Your task to perform on an android device: View the shopping cart on amazon.com. Search for "jbl flip 4" on amazon.com, select the first entry, add it to the cart, then select checkout. Image 0: 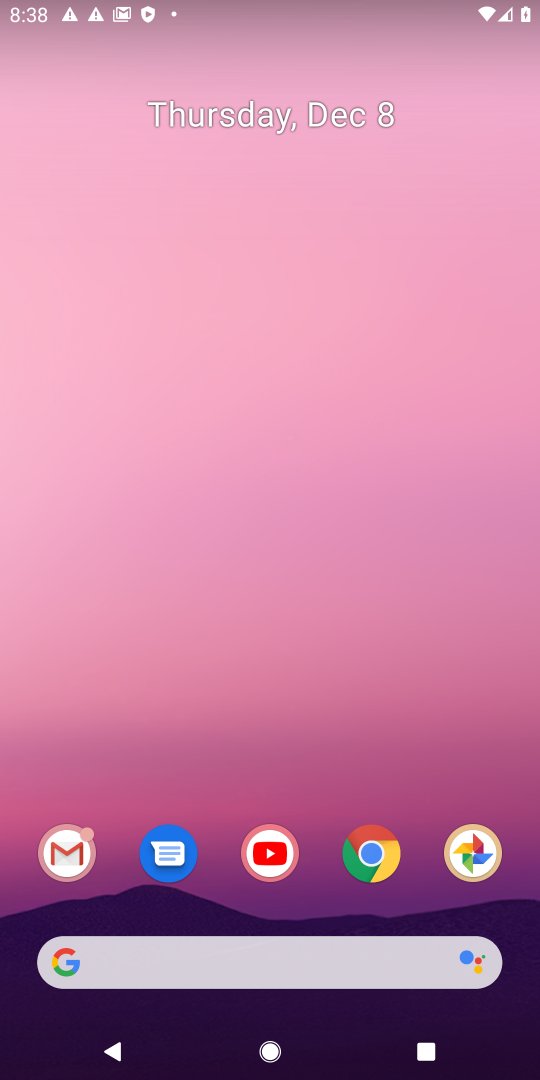
Step 0: click (253, 961)
Your task to perform on an android device: View the shopping cart on amazon.com. Search for "jbl flip 4" on amazon.com, select the first entry, add it to the cart, then select checkout. Image 1: 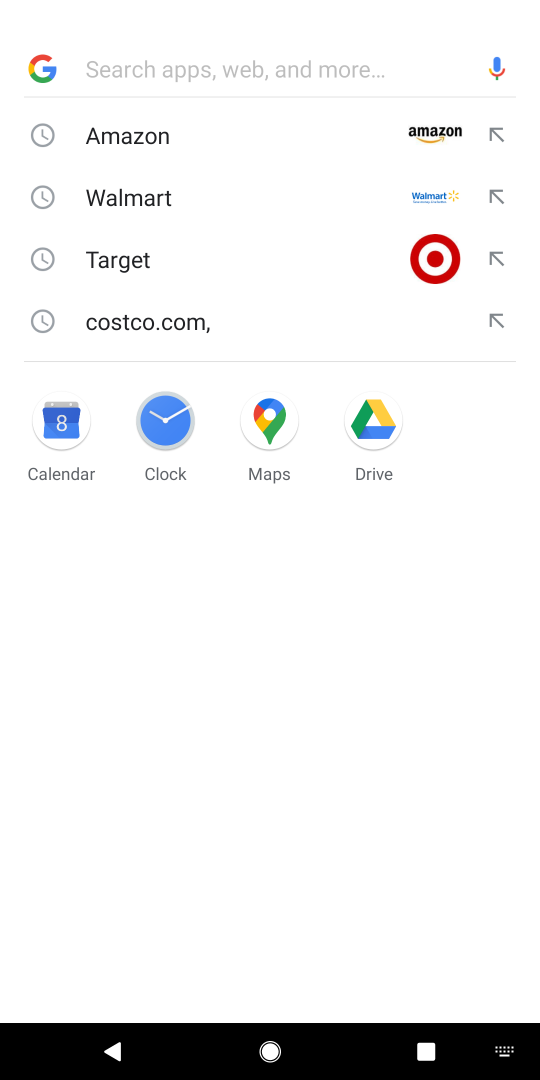
Step 1: click (137, 130)
Your task to perform on an android device: View the shopping cart on amazon.com. Search for "jbl flip 4" on amazon.com, select the first entry, add it to the cart, then select checkout. Image 2: 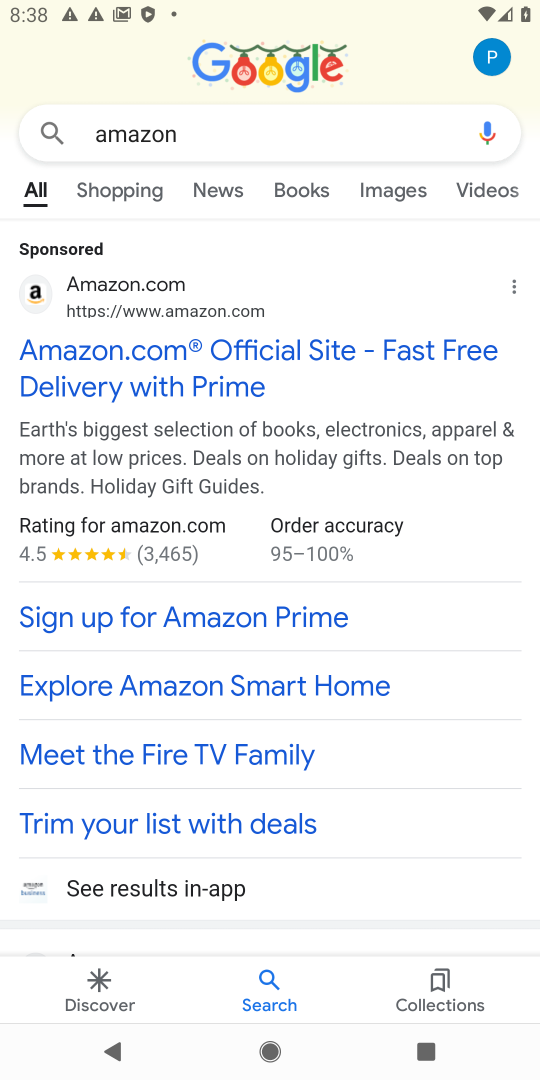
Step 2: click (178, 361)
Your task to perform on an android device: View the shopping cart on amazon.com. Search for "jbl flip 4" on amazon.com, select the first entry, add it to the cart, then select checkout. Image 3: 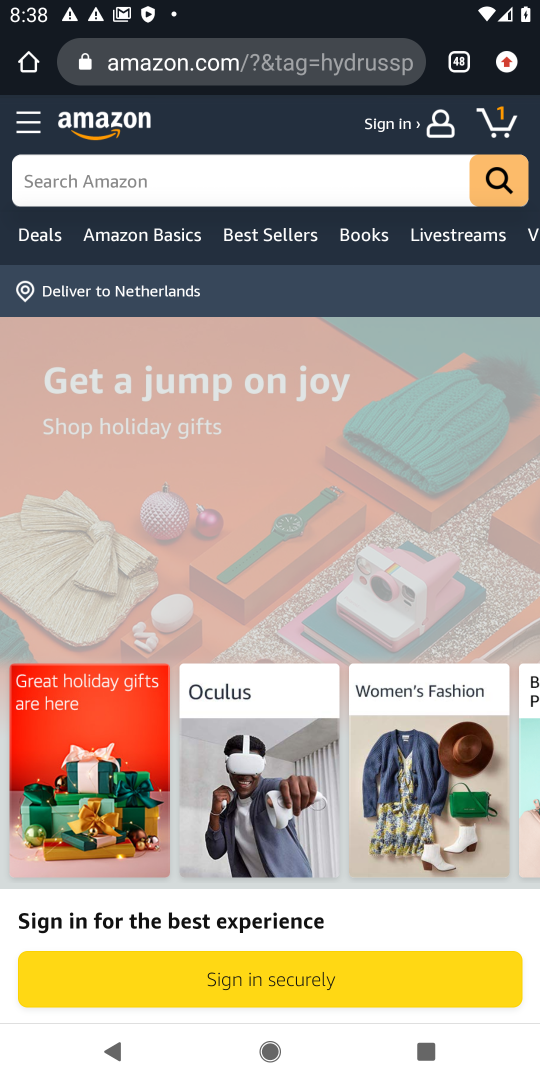
Step 3: click (241, 184)
Your task to perform on an android device: View the shopping cart on amazon.com. Search for "jbl flip 4" on amazon.com, select the first entry, add it to the cart, then select checkout. Image 4: 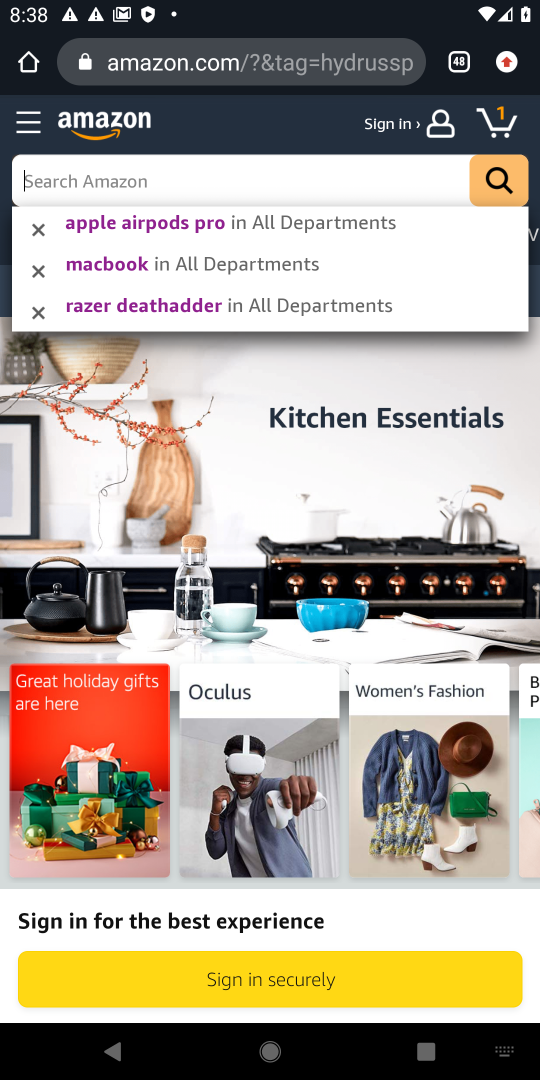
Step 4: type "jbl flip 4"
Your task to perform on an android device: View the shopping cart on amazon.com. Search for "jbl flip 4" on amazon.com, select the first entry, add it to the cart, then select checkout. Image 5: 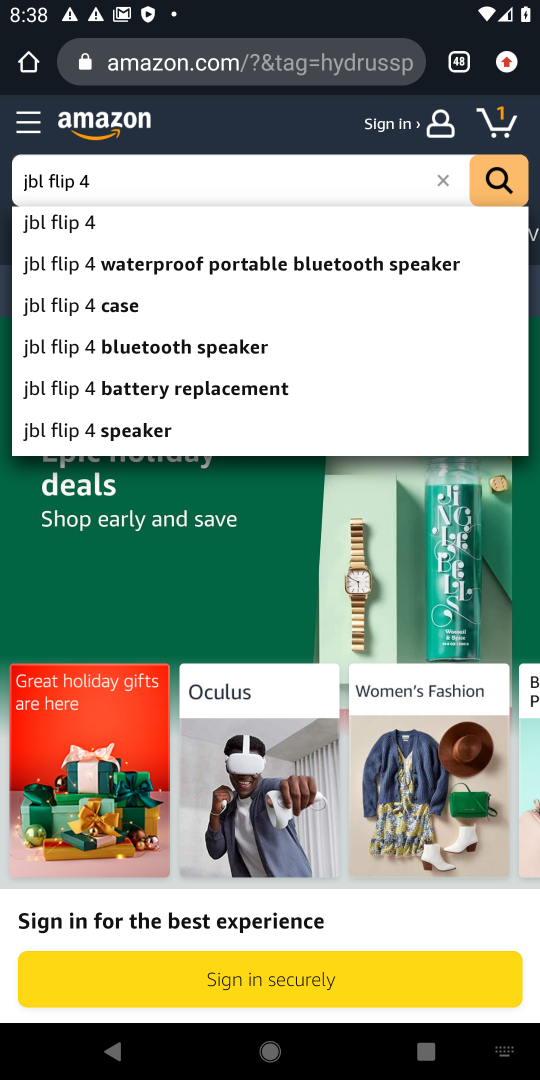
Step 5: click (86, 223)
Your task to perform on an android device: View the shopping cart on amazon.com. Search for "jbl flip 4" on amazon.com, select the first entry, add it to the cart, then select checkout. Image 6: 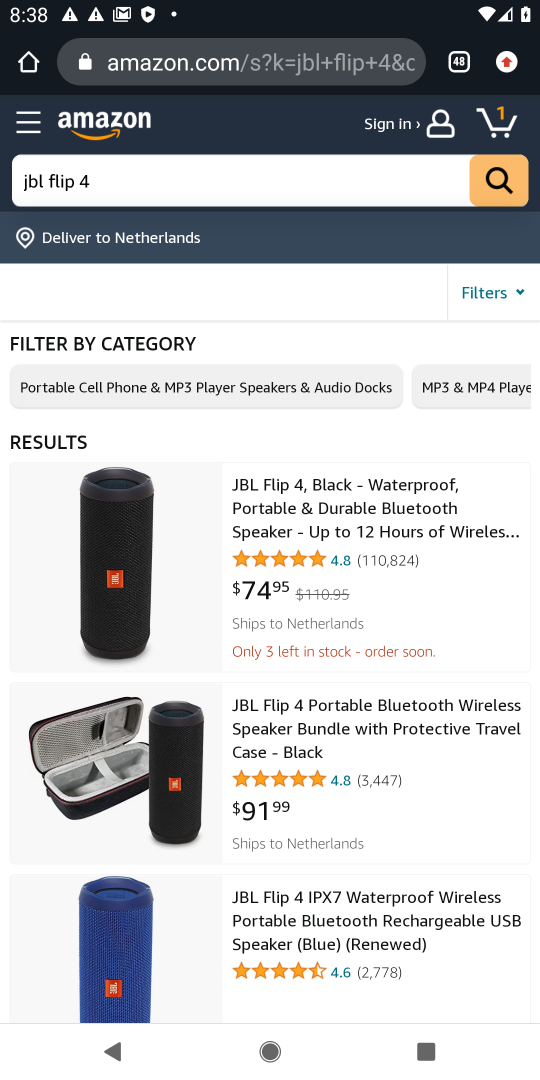
Step 6: click (347, 500)
Your task to perform on an android device: View the shopping cart on amazon.com. Search for "jbl flip 4" on amazon.com, select the first entry, add it to the cart, then select checkout. Image 7: 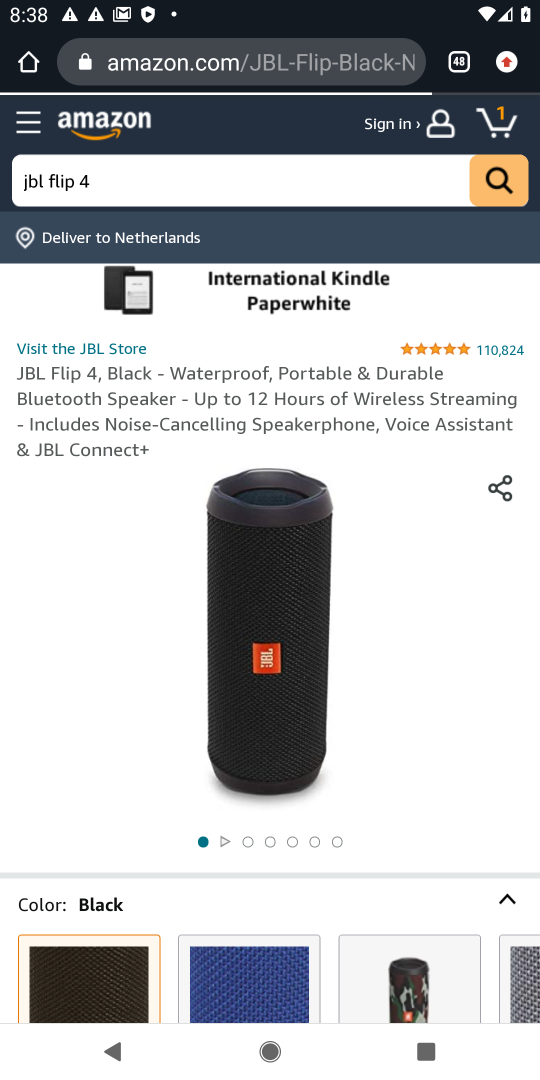
Step 7: drag from (360, 767) to (337, 466)
Your task to perform on an android device: View the shopping cart on amazon.com. Search for "jbl flip 4" on amazon.com, select the first entry, add it to the cart, then select checkout. Image 8: 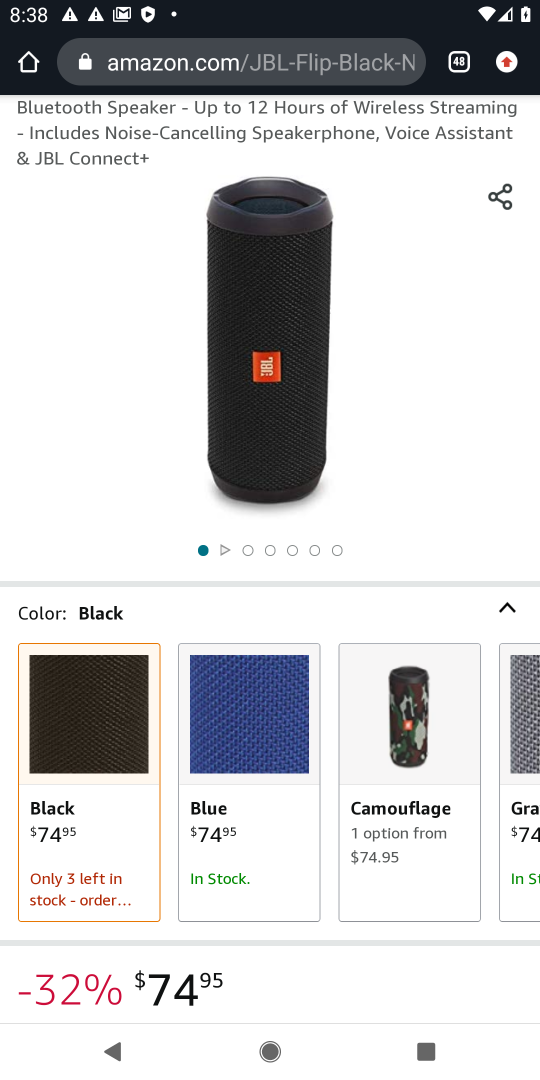
Step 8: drag from (374, 498) to (338, 196)
Your task to perform on an android device: View the shopping cart on amazon.com. Search for "jbl flip 4" on amazon.com, select the first entry, add it to the cart, then select checkout. Image 9: 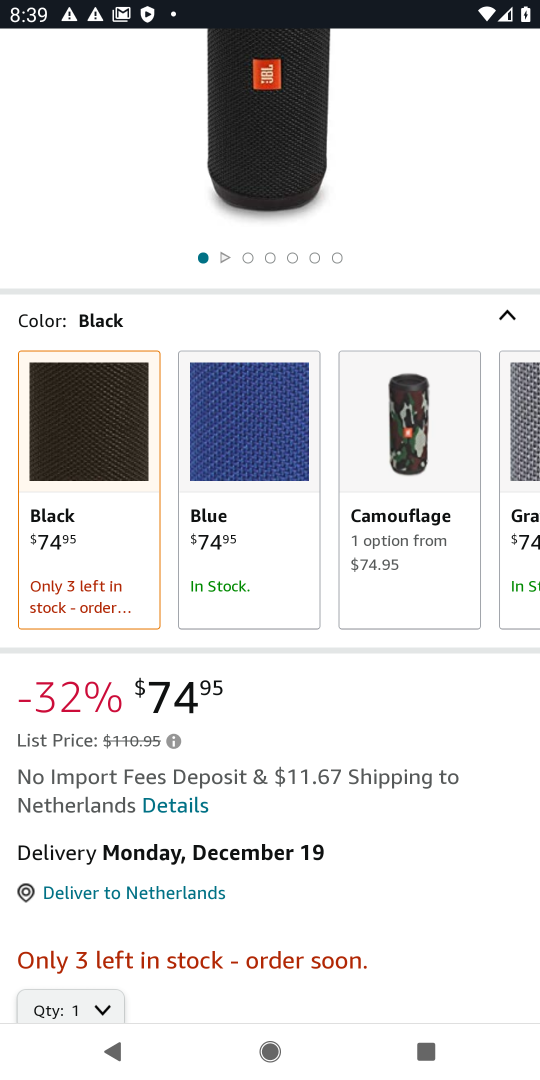
Step 9: drag from (339, 723) to (315, 411)
Your task to perform on an android device: View the shopping cart on amazon.com. Search for "jbl flip 4" on amazon.com, select the first entry, add it to the cart, then select checkout. Image 10: 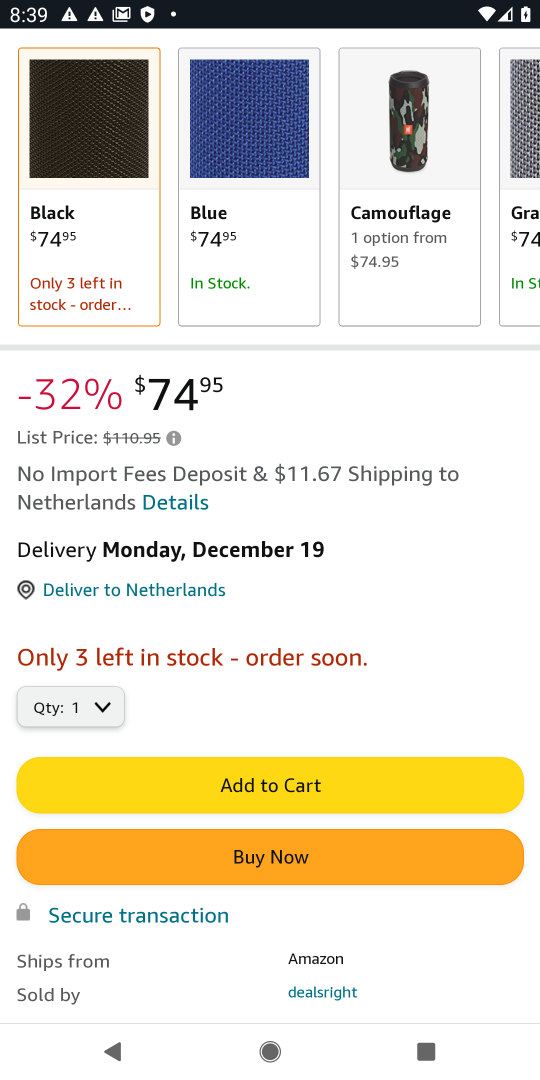
Step 10: click (272, 783)
Your task to perform on an android device: View the shopping cart on amazon.com. Search for "jbl flip 4" on amazon.com, select the first entry, add it to the cart, then select checkout. Image 11: 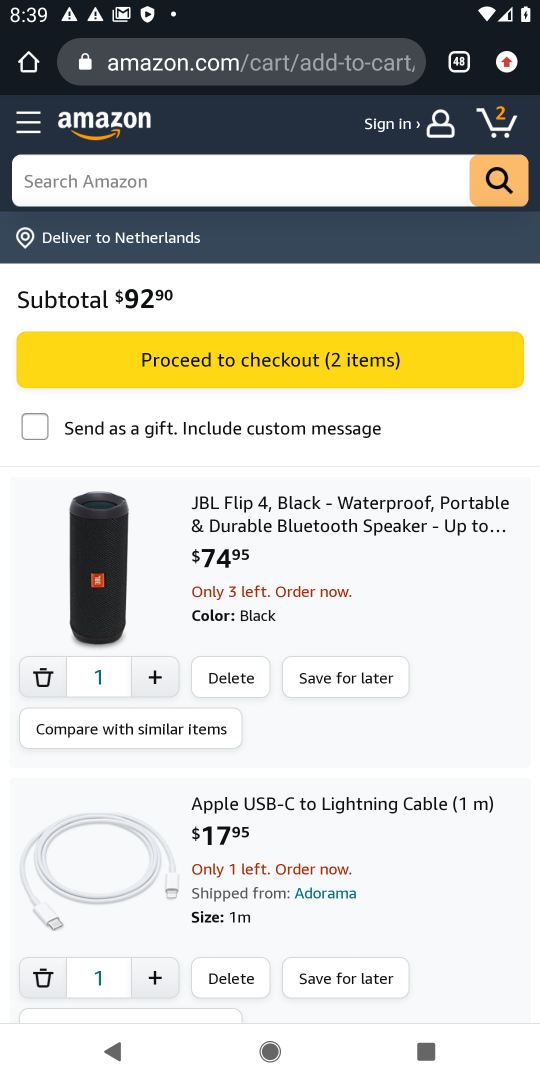
Step 11: click (271, 358)
Your task to perform on an android device: View the shopping cart on amazon.com. Search for "jbl flip 4" on amazon.com, select the first entry, add it to the cart, then select checkout. Image 12: 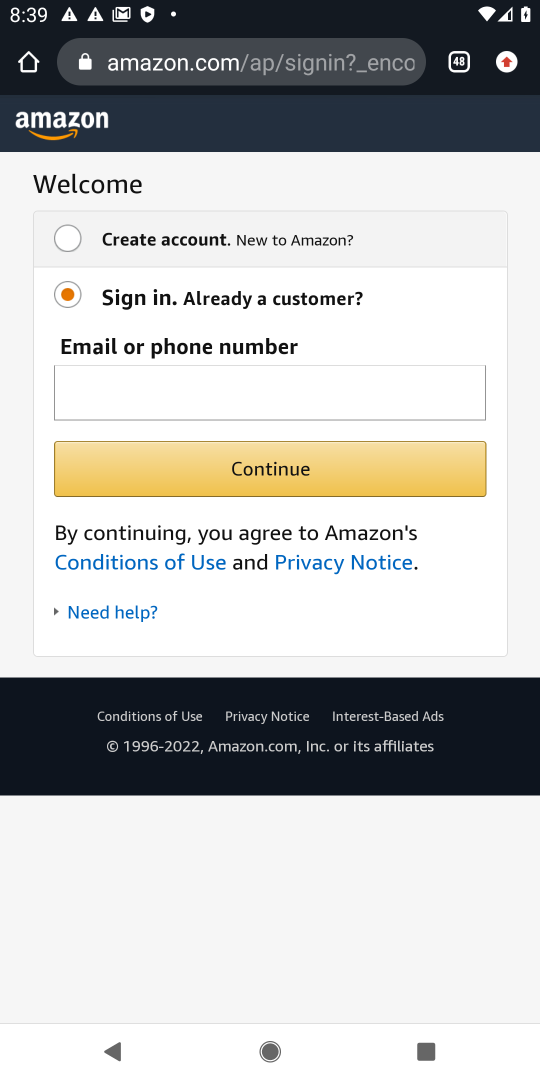
Step 12: task complete